Your task to perform on an android device: find which apps use the phone's location Image 0: 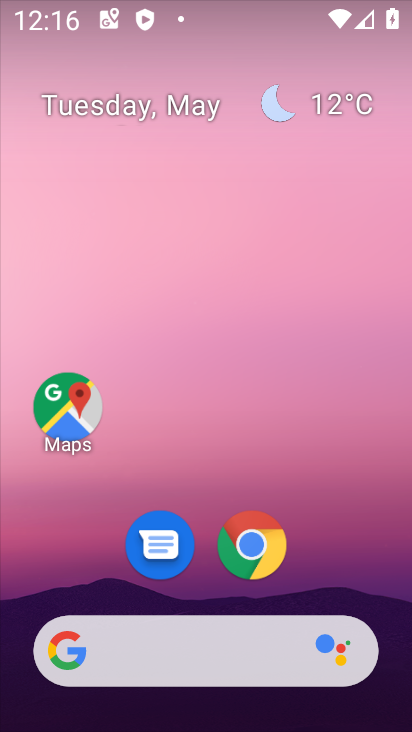
Step 0: drag from (345, 585) to (297, 70)
Your task to perform on an android device: find which apps use the phone's location Image 1: 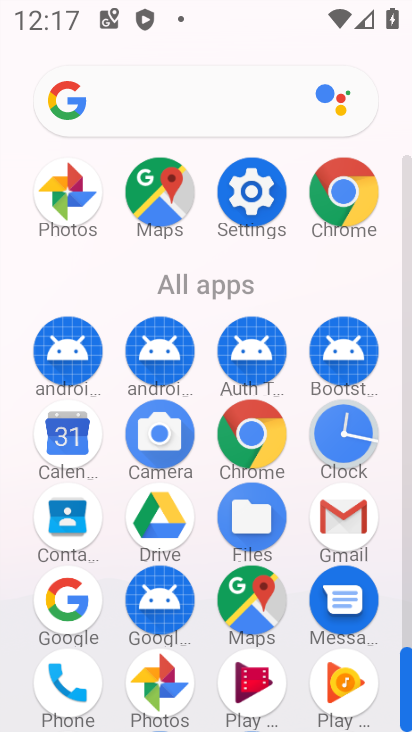
Step 1: drag from (224, 297) to (224, 207)
Your task to perform on an android device: find which apps use the phone's location Image 2: 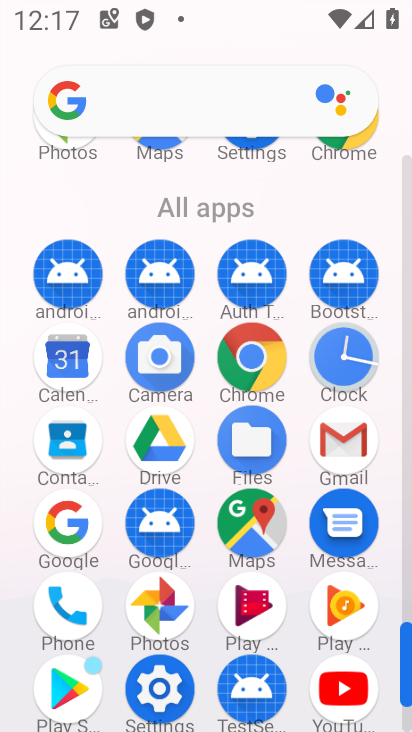
Step 2: click (256, 157)
Your task to perform on an android device: find which apps use the phone's location Image 3: 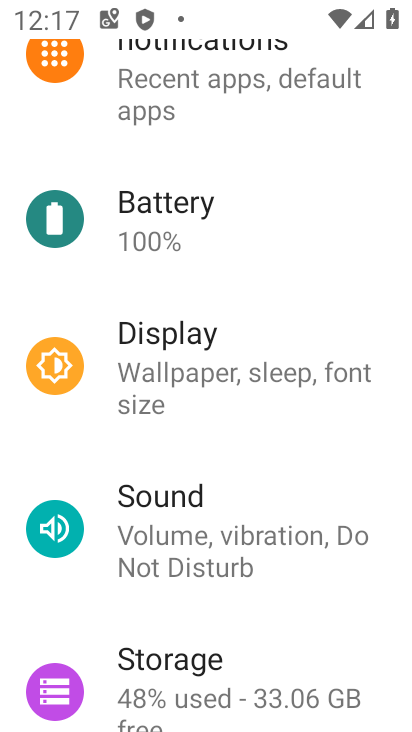
Step 3: drag from (233, 618) to (200, 184)
Your task to perform on an android device: find which apps use the phone's location Image 4: 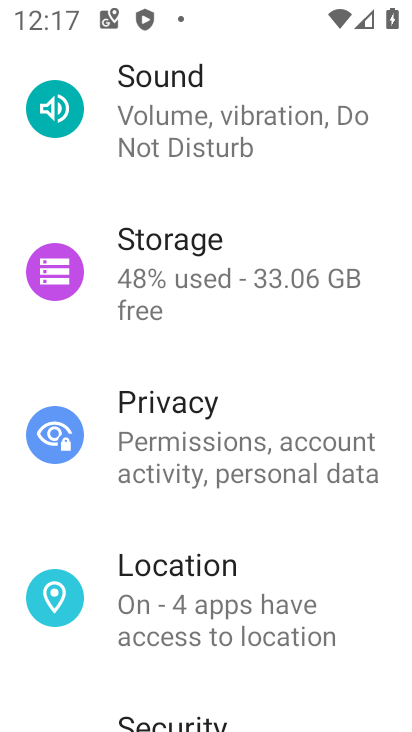
Step 4: drag from (116, 650) to (112, 361)
Your task to perform on an android device: find which apps use the phone's location Image 5: 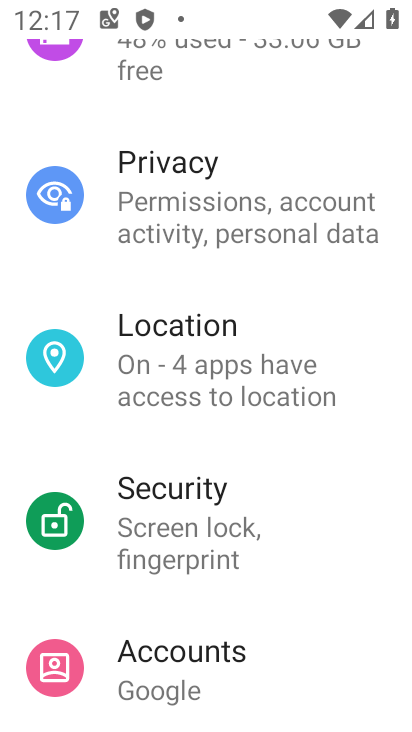
Step 5: click (159, 349)
Your task to perform on an android device: find which apps use the phone's location Image 6: 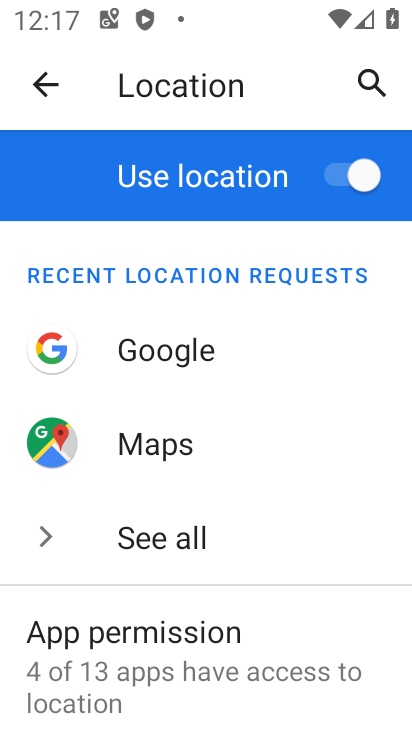
Step 6: click (156, 654)
Your task to perform on an android device: find which apps use the phone's location Image 7: 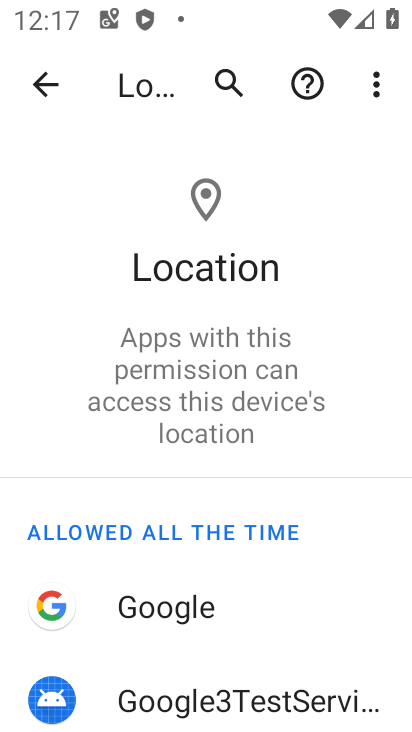
Step 7: task complete